Your task to perform on an android device: open sync settings in chrome Image 0: 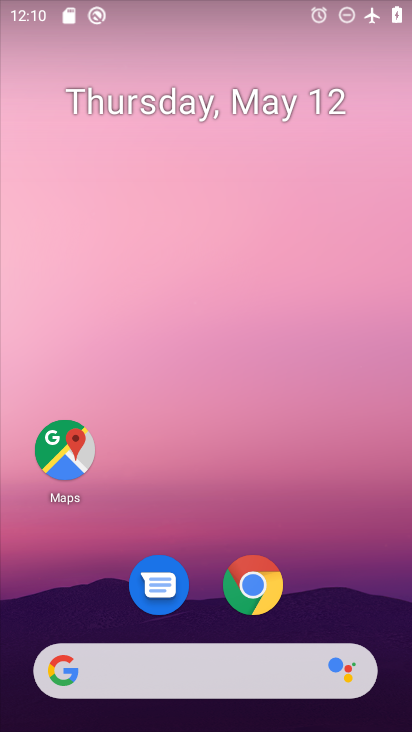
Step 0: click (265, 573)
Your task to perform on an android device: open sync settings in chrome Image 1: 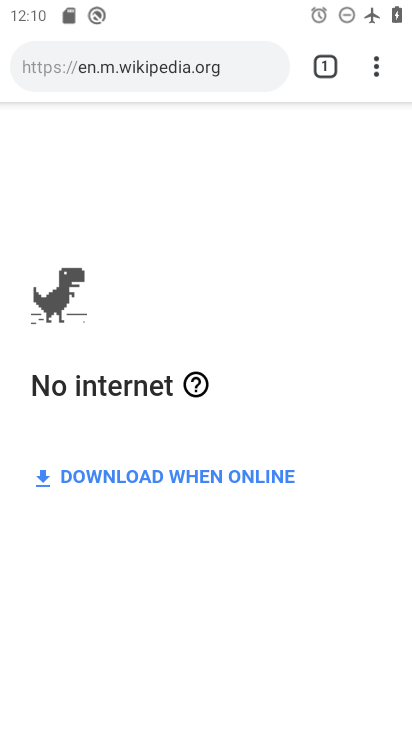
Step 1: click (376, 72)
Your task to perform on an android device: open sync settings in chrome Image 2: 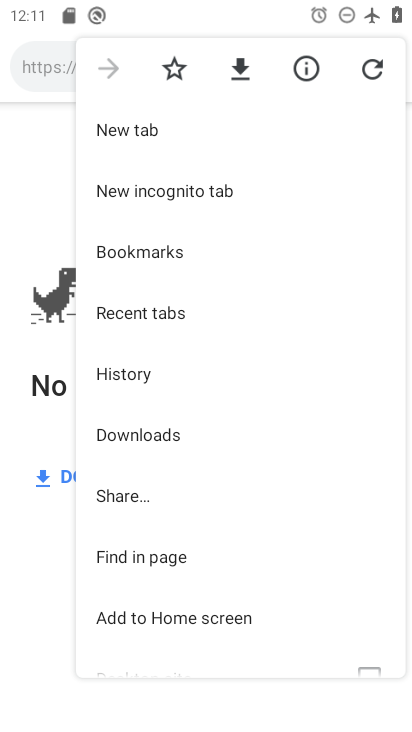
Step 2: drag from (239, 493) to (230, 251)
Your task to perform on an android device: open sync settings in chrome Image 3: 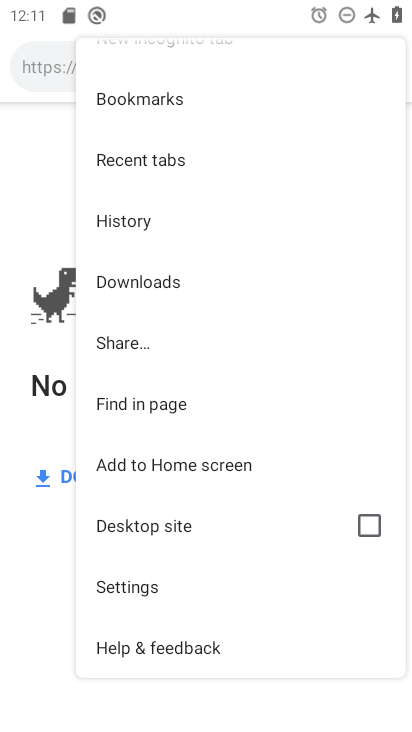
Step 3: click (143, 574)
Your task to perform on an android device: open sync settings in chrome Image 4: 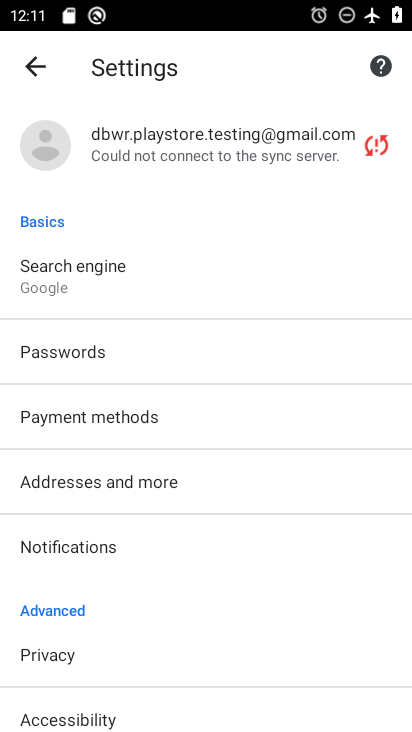
Step 4: click (169, 128)
Your task to perform on an android device: open sync settings in chrome Image 5: 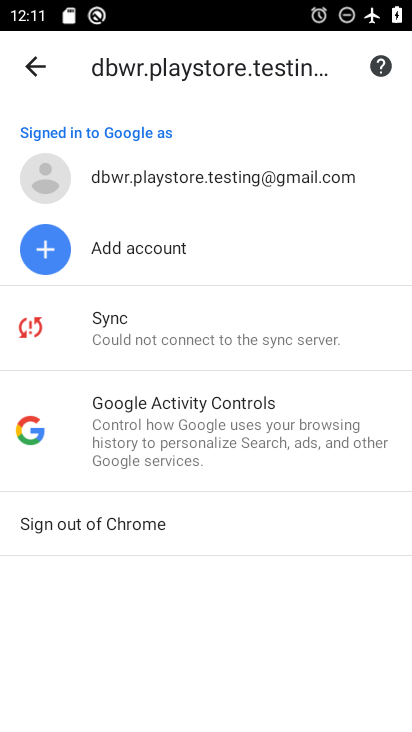
Step 5: click (190, 315)
Your task to perform on an android device: open sync settings in chrome Image 6: 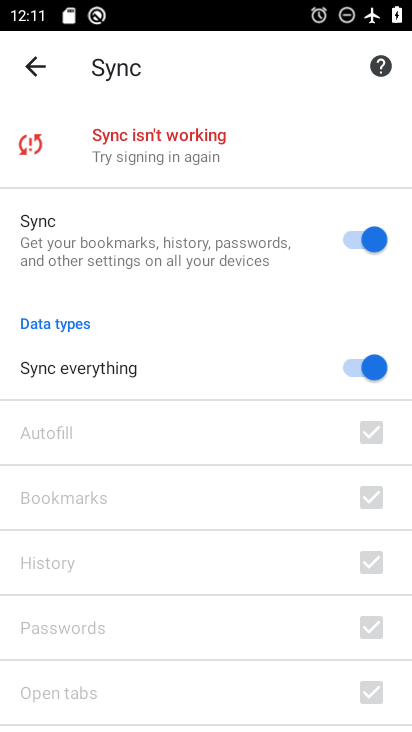
Step 6: task complete